Your task to perform on an android device: Go to display settings Image 0: 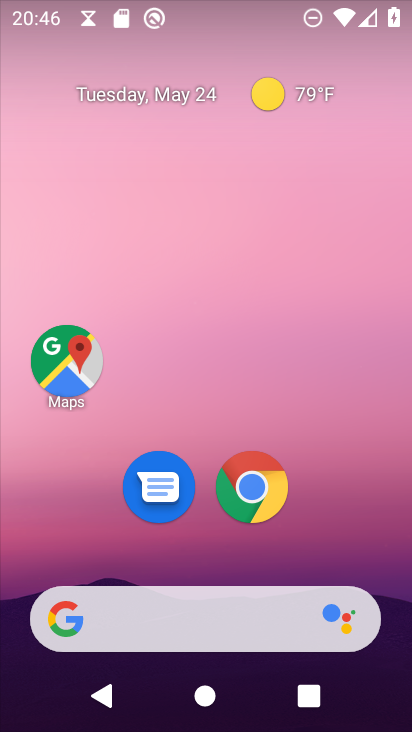
Step 0: drag from (29, 540) to (186, 241)
Your task to perform on an android device: Go to display settings Image 1: 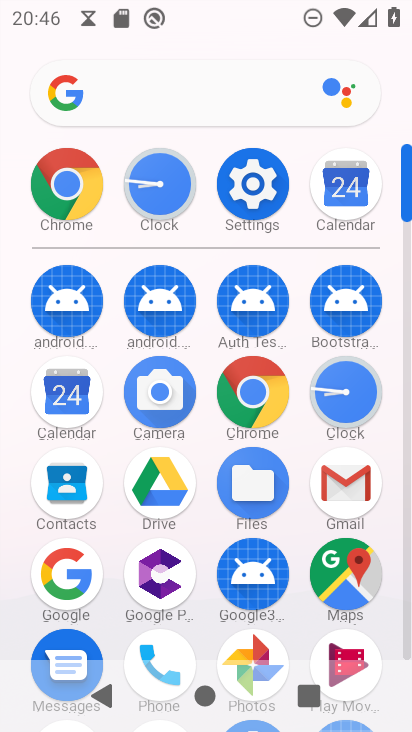
Step 1: click (241, 187)
Your task to perform on an android device: Go to display settings Image 2: 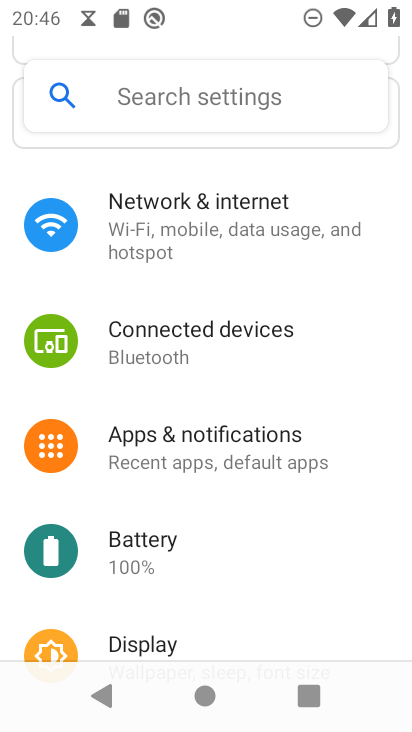
Step 2: click (91, 636)
Your task to perform on an android device: Go to display settings Image 3: 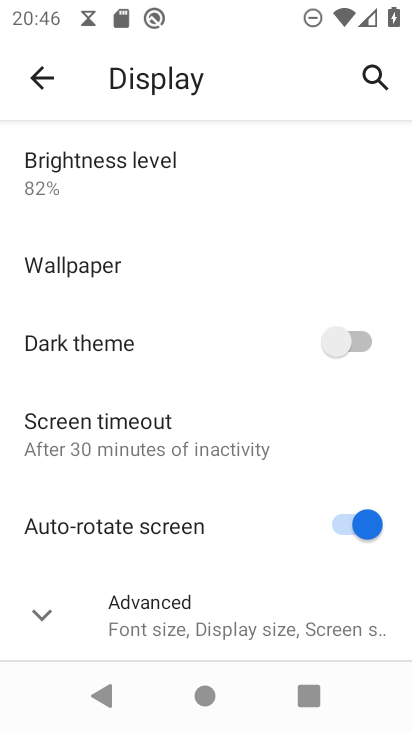
Step 3: task complete